Your task to perform on an android device: Go to ESPN.com Image 0: 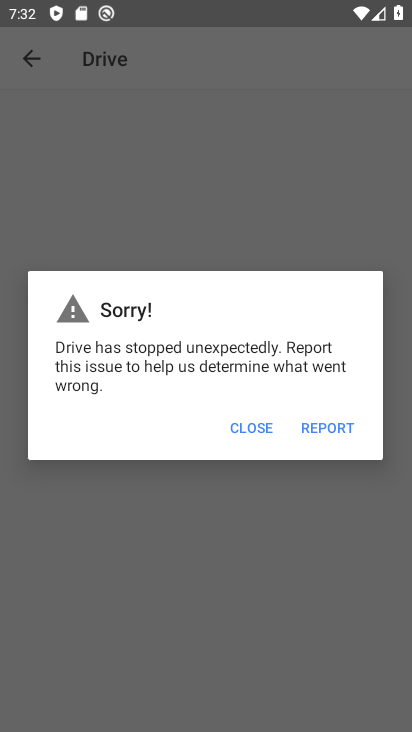
Step 0: press home button
Your task to perform on an android device: Go to ESPN.com Image 1: 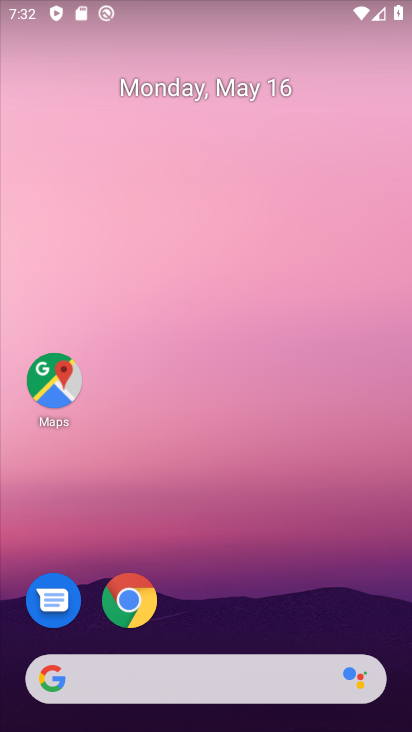
Step 1: click (145, 599)
Your task to perform on an android device: Go to ESPN.com Image 2: 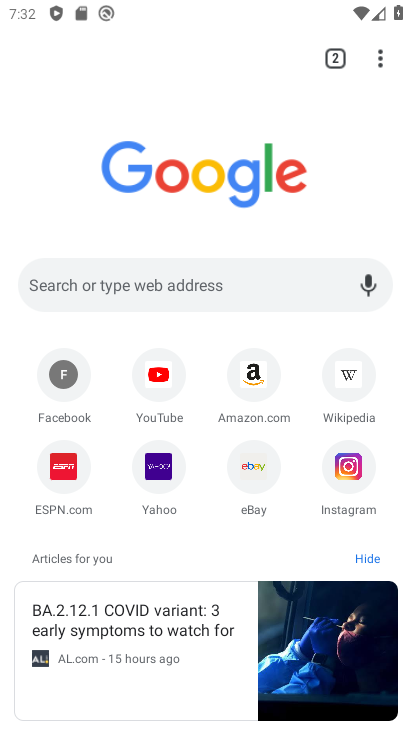
Step 2: click (66, 471)
Your task to perform on an android device: Go to ESPN.com Image 3: 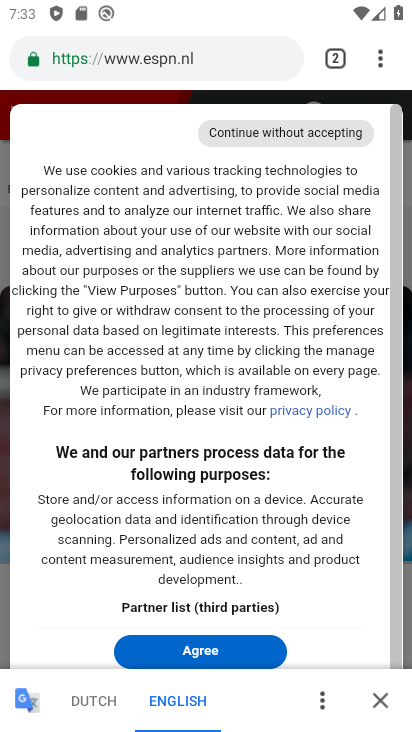
Step 3: click (212, 646)
Your task to perform on an android device: Go to ESPN.com Image 4: 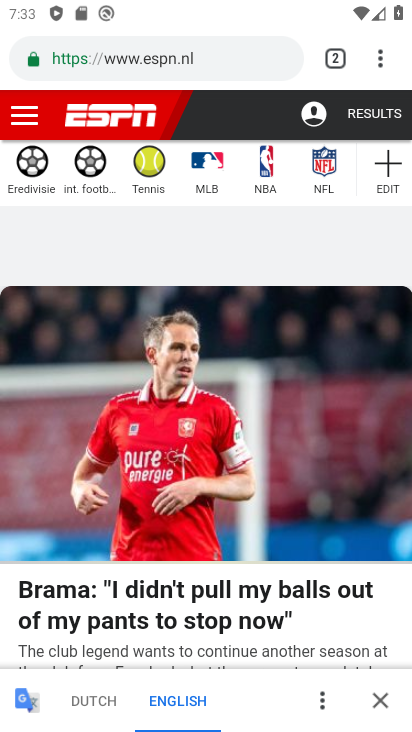
Step 4: task complete